Your task to perform on an android device: turn off data saver in the chrome app Image 0: 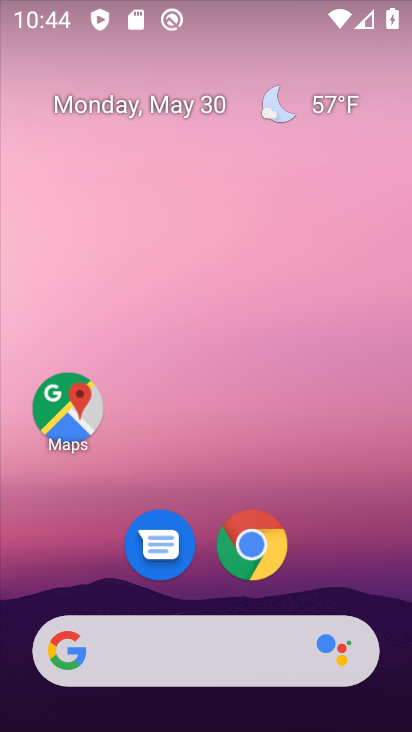
Step 0: drag from (294, 678) to (330, 6)
Your task to perform on an android device: turn off data saver in the chrome app Image 1: 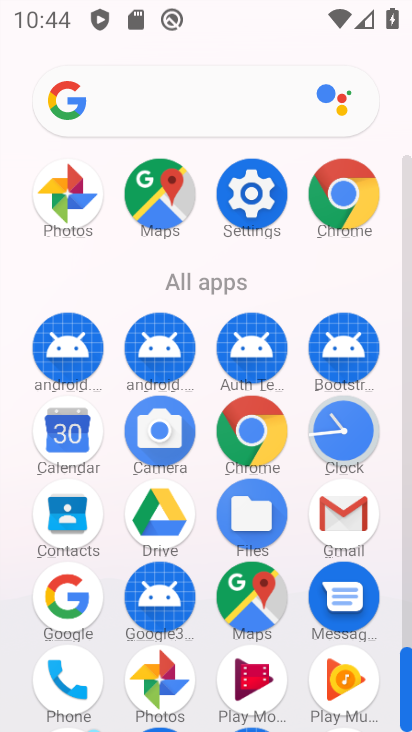
Step 1: click (357, 200)
Your task to perform on an android device: turn off data saver in the chrome app Image 2: 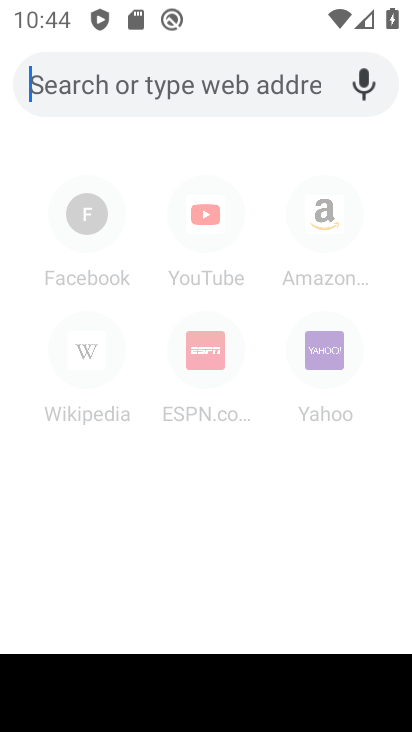
Step 2: press back button
Your task to perform on an android device: turn off data saver in the chrome app Image 3: 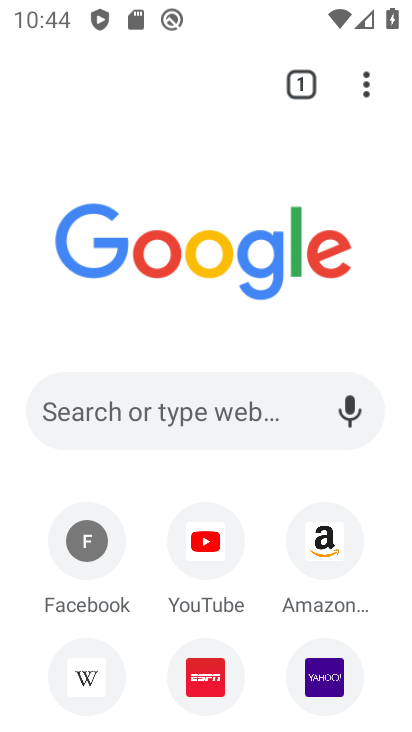
Step 3: click (370, 89)
Your task to perform on an android device: turn off data saver in the chrome app Image 4: 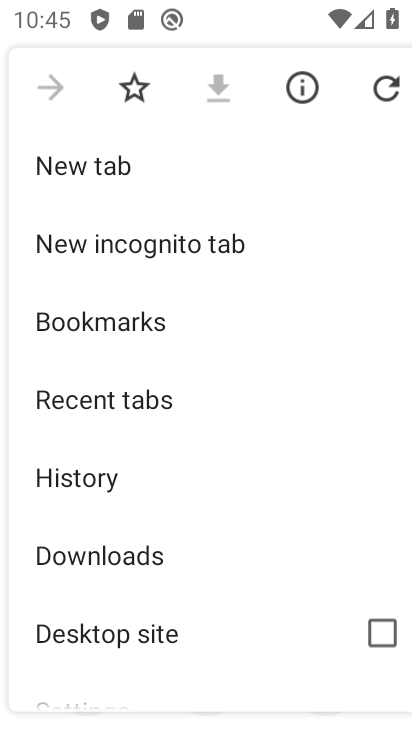
Step 4: drag from (139, 568) to (166, 187)
Your task to perform on an android device: turn off data saver in the chrome app Image 5: 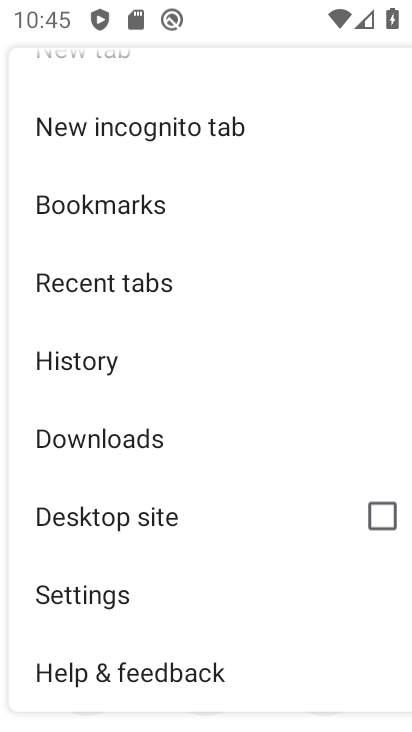
Step 5: click (105, 593)
Your task to perform on an android device: turn off data saver in the chrome app Image 6: 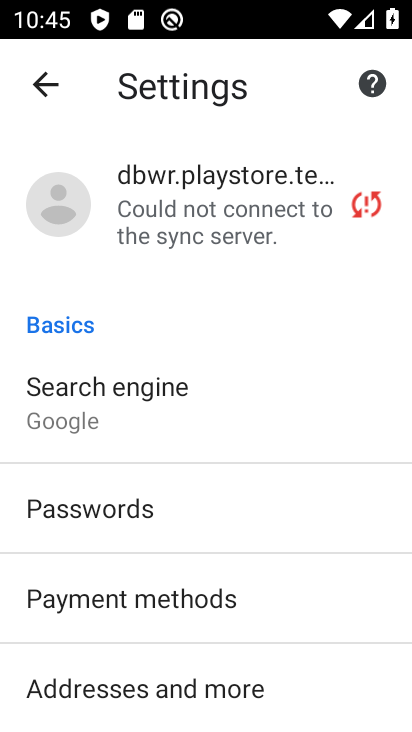
Step 6: drag from (153, 677) to (175, 431)
Your task to perform on an android device: turn off data saver in the chrome app Image 7: 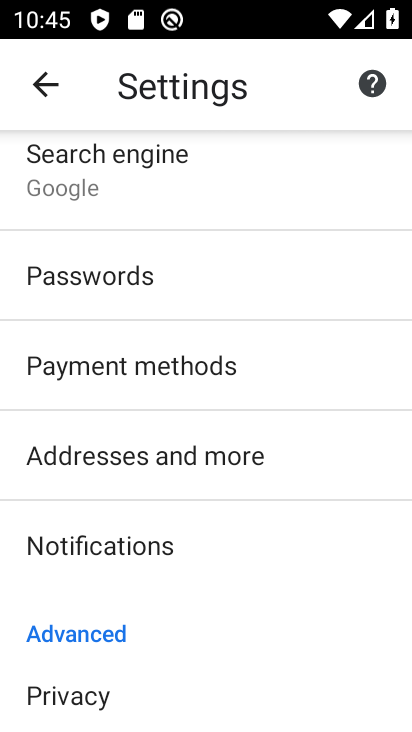
Step 7: drag from (134, 608) to (118, 461)
Your task to perform on an android device: turn off data saver in the chrome app Image 8: 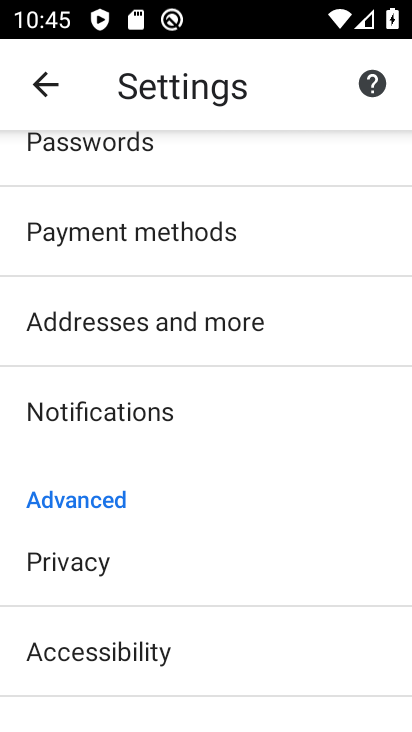
Step 8: drag from (158, 597) to (164, 334)
Your task to perform on an android device: turn off data saver in the chrome app Image 9: 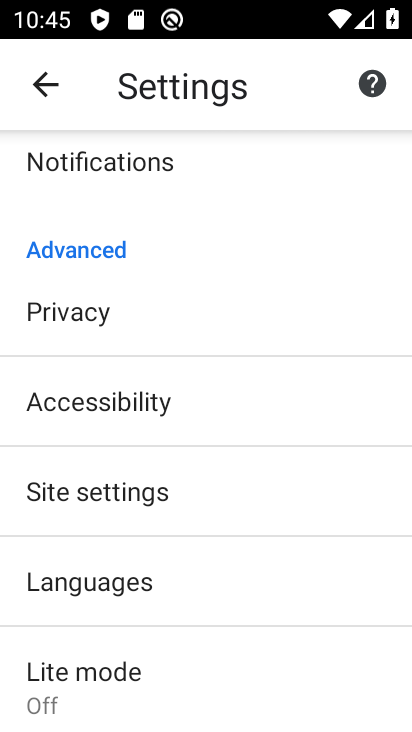
Step 9: click (91, 669)
Your task to perform on an android device: turn off data saver in the chrome app Image 10: 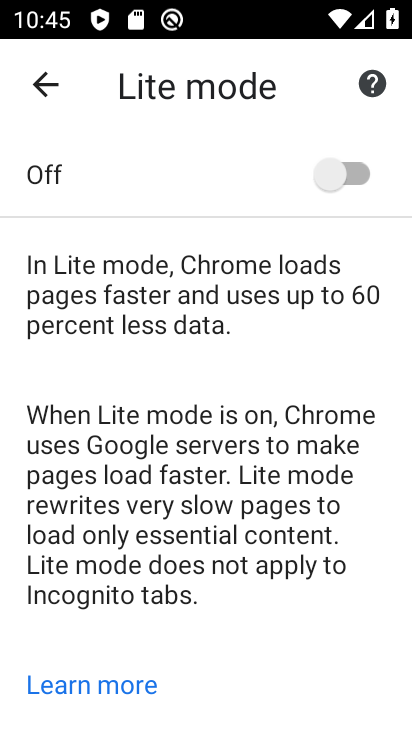
Step 10: click (352, 167)
Your task to perform on an android device: turn off data saver in the chrome app Image 11: 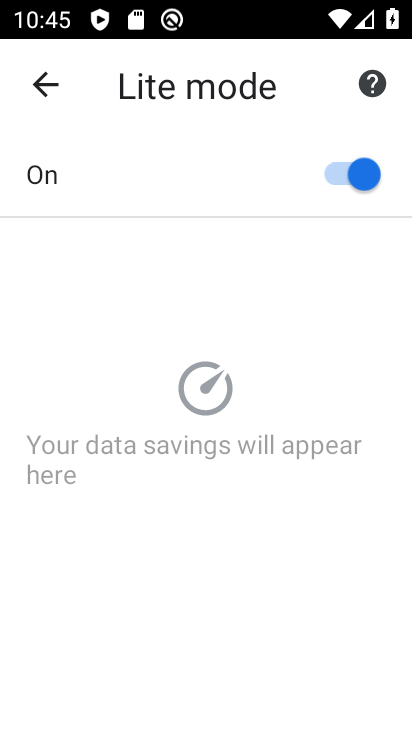
Step 11: click (353, 169)
Your task to perform on an android device: turn off data saver in the chrome app Image 12: 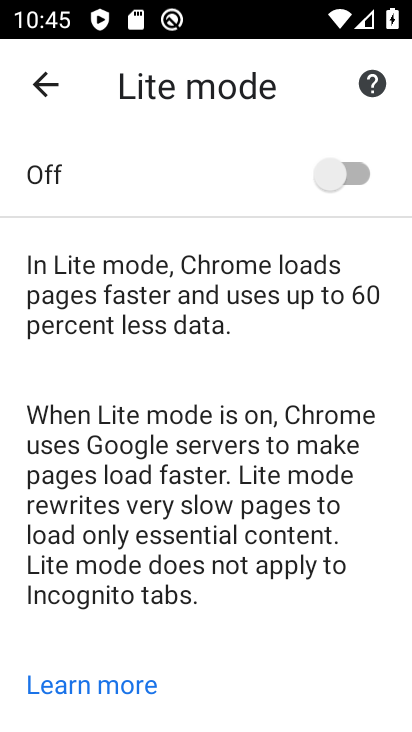
Step 12: task complete